Your task to perform on an android device: Search for "The Dispatcher" by John Scalzi on Goodreads Image 0: 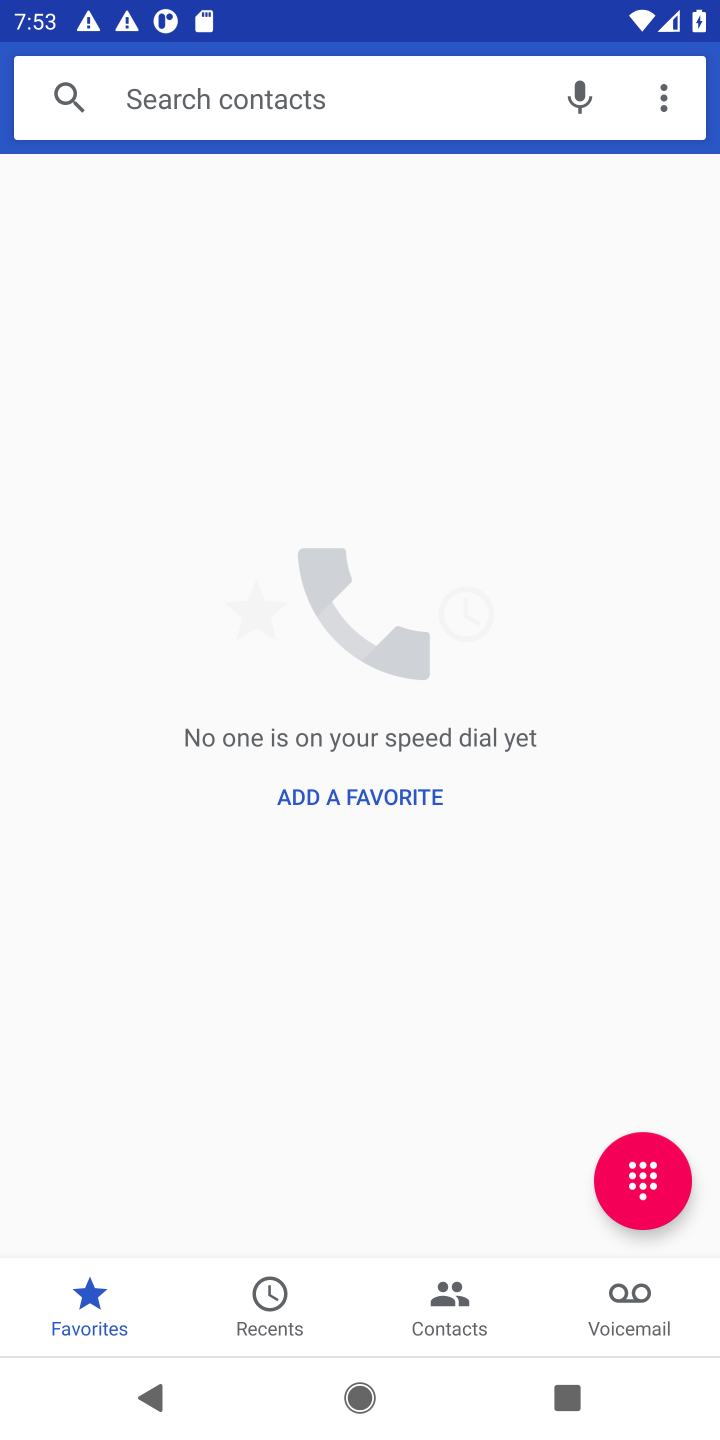
Step 0: press home button
Your task to perform on an android device: Search for "The Dispatcher" by John Scalzi on Goodreads Image 1: 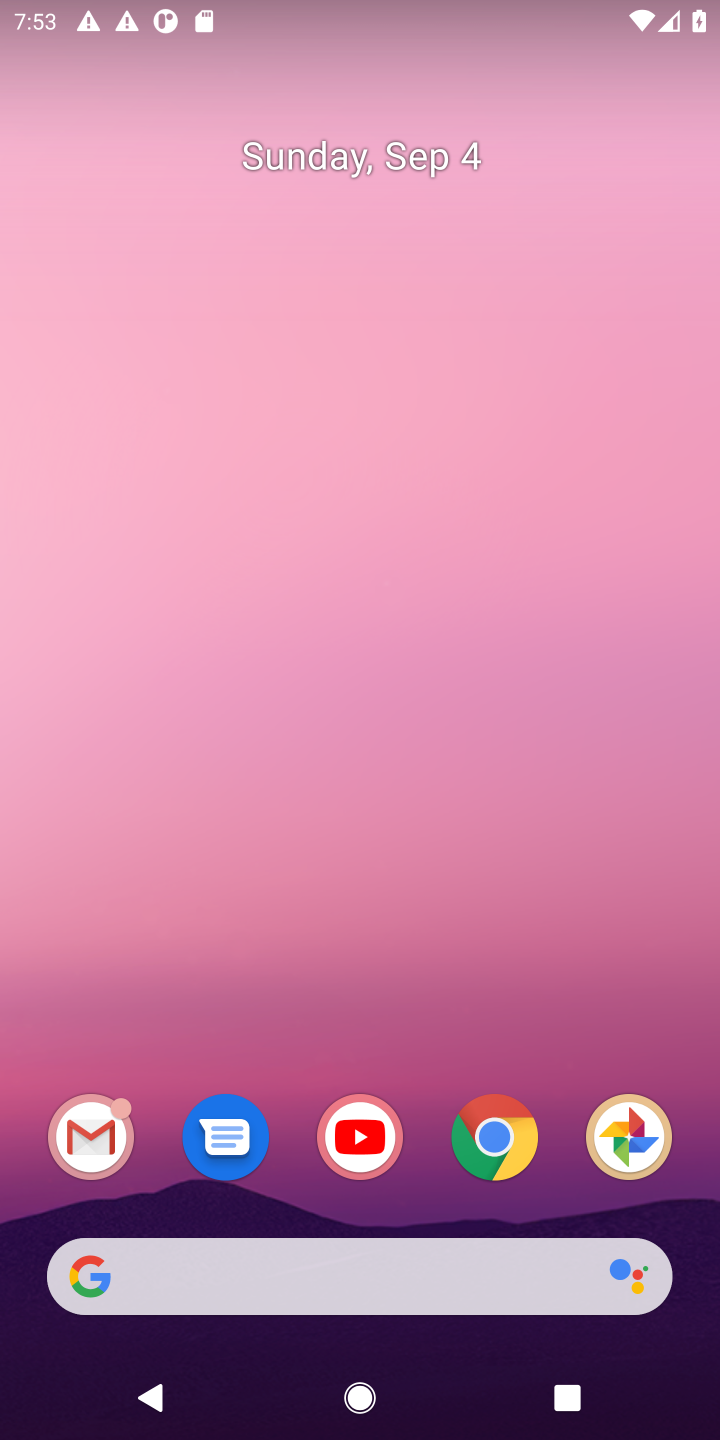
Step 1: click (495, 1142)
Your task to perform on an android device: Search for "The Dispatcher" by John Scalzi on Goodreads Image 2: 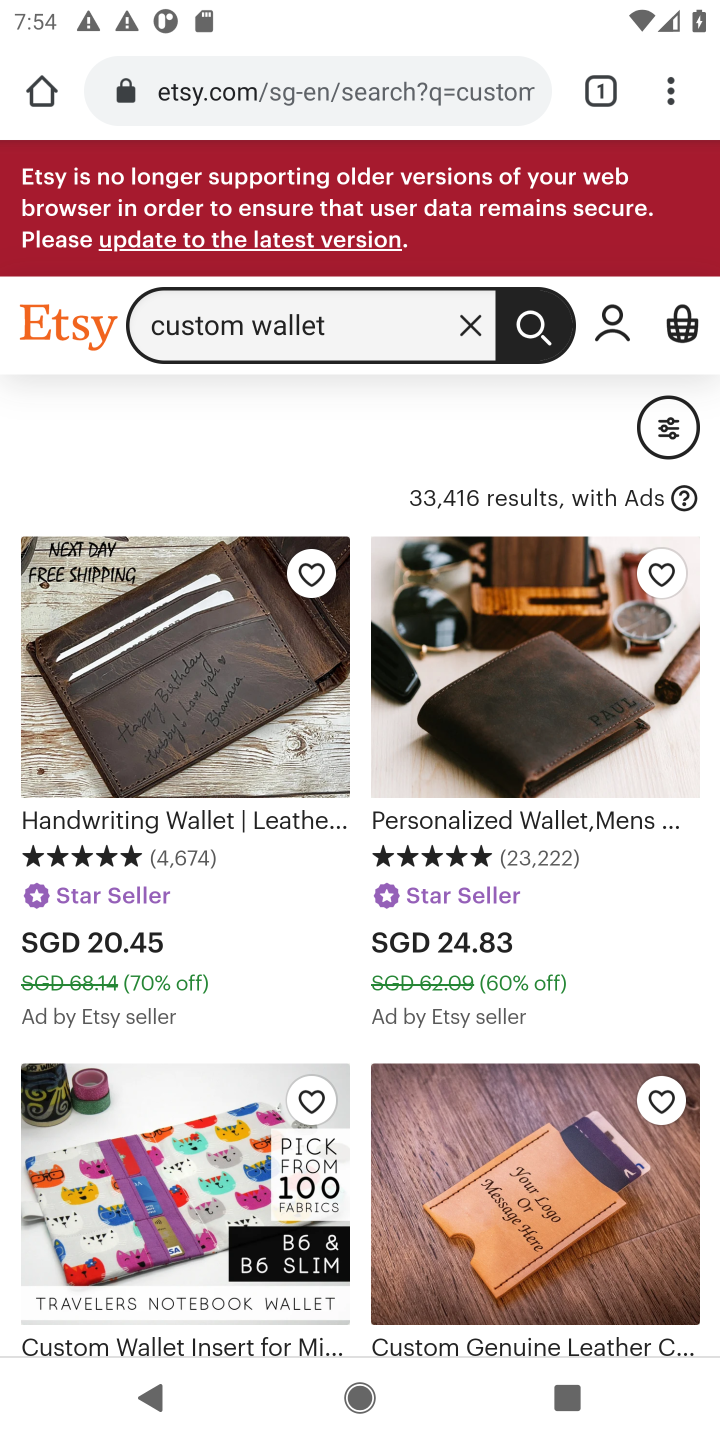
Step 2: click (316, 83)
Your task to perform on an android device: Search for "The Dispatcher" by John Scalzi on Goodreads Image 3: 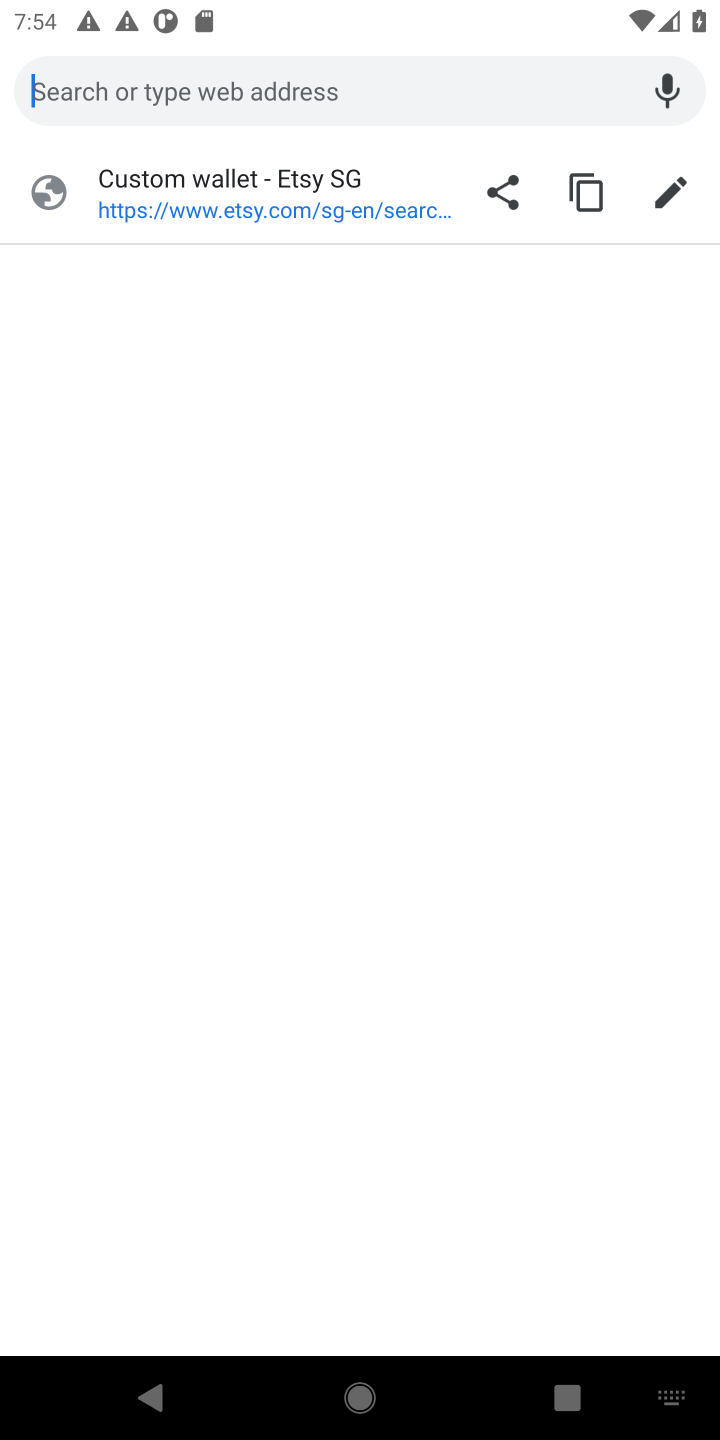
Step 3: type "Goodreads"
Your task to perform on an android device: Search for "The Dispatcher" by John Scalzi on Goodreads Image 4: 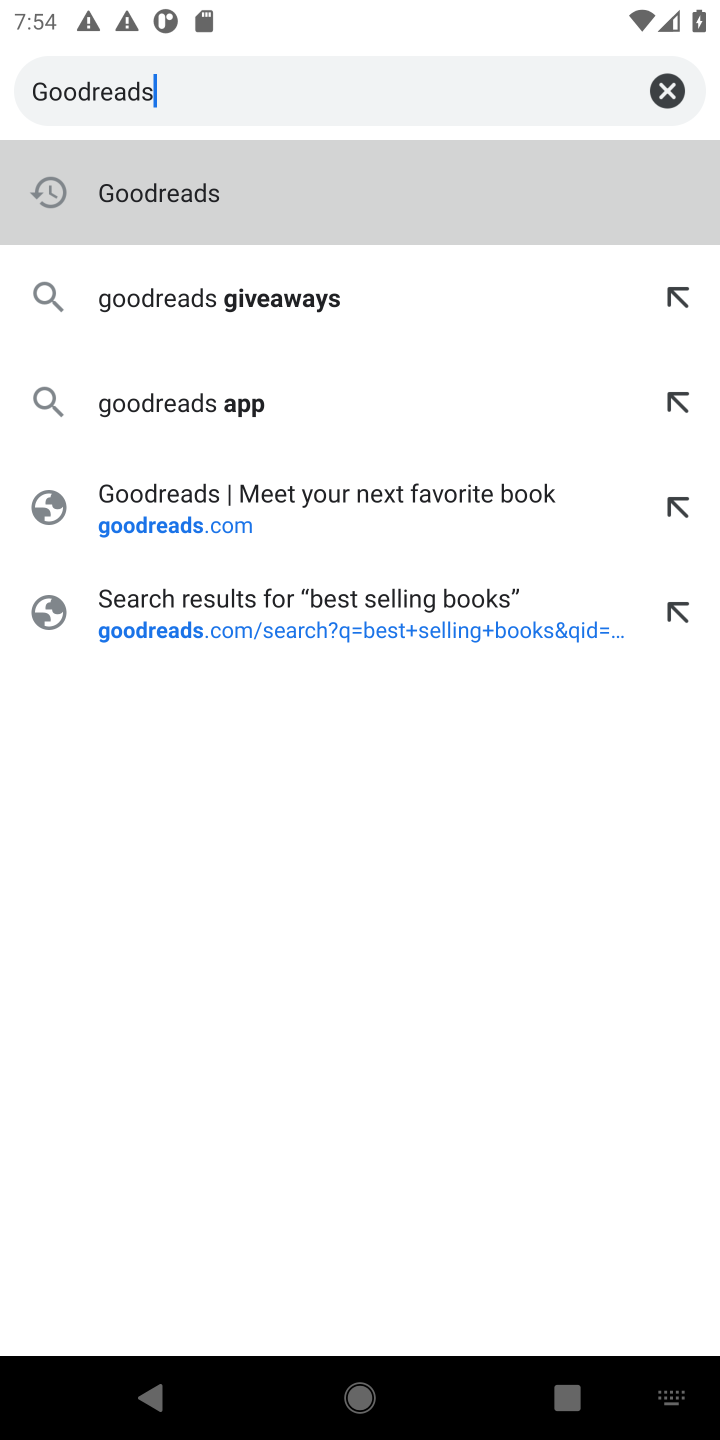
Step 4: click (152, 209)
Your task to perform on an android device: Search for "The Dispatcher" by John Scalzi on Goodreads Image 5: 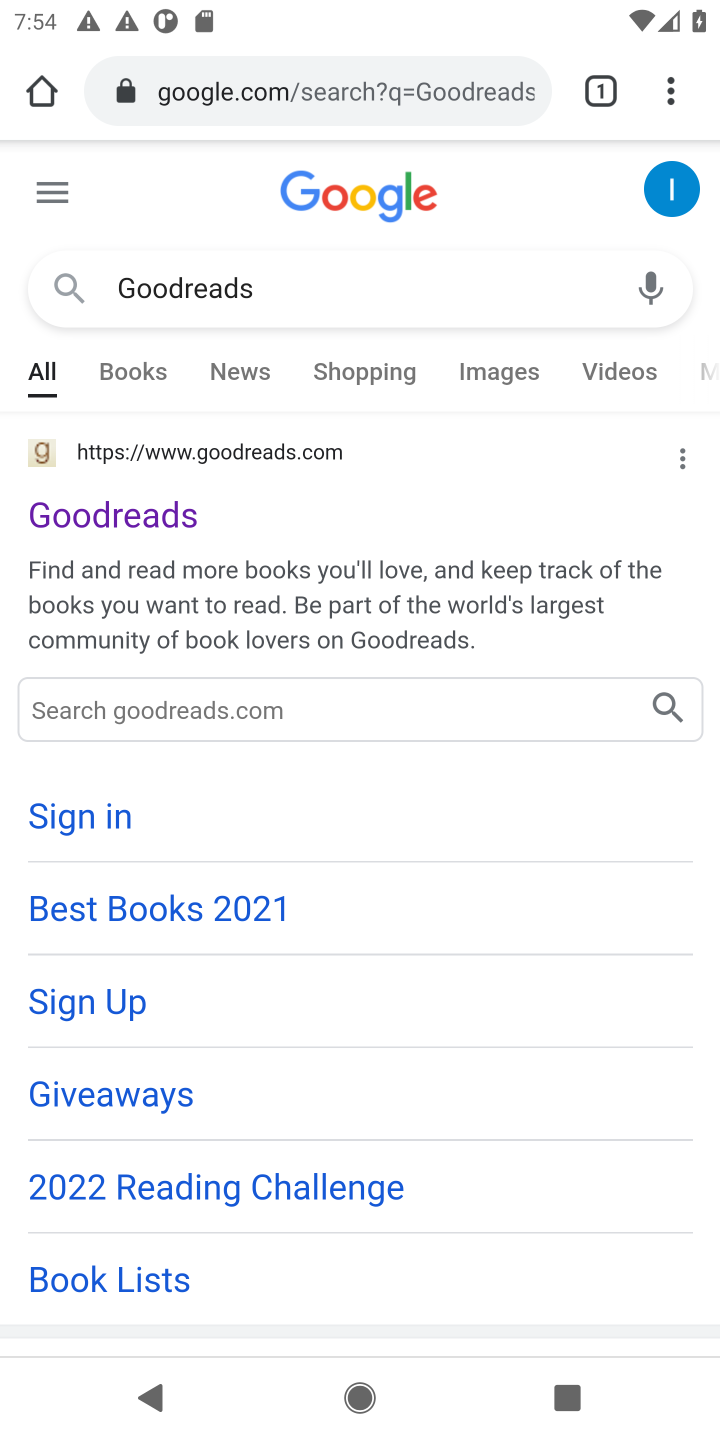
Step 5: click (135, 507)
Your task to perform on an android device: Search for "The Dispatcher" by John Scalzi on Goodreads Image 6: 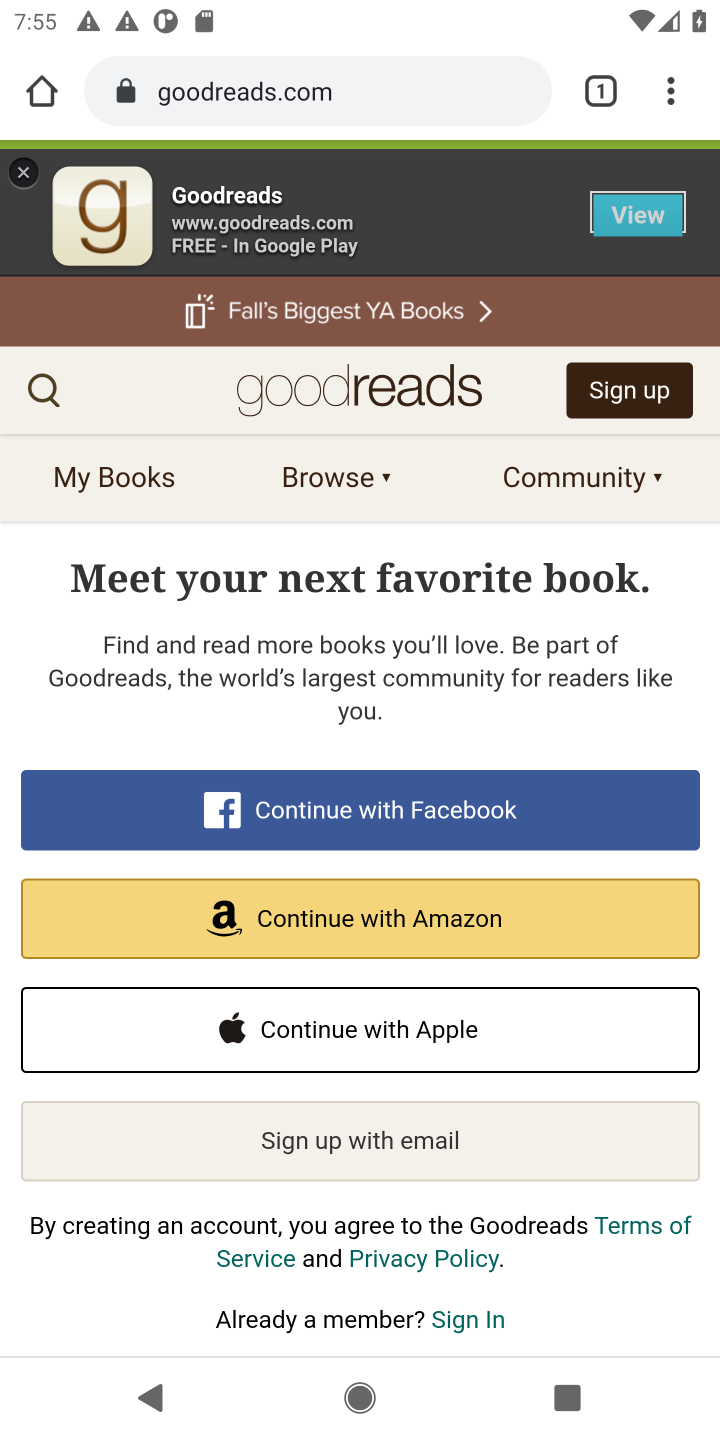
Step 6: click (41, 382)
Your task to perform on an android device: Search for "The Dispatcher" by John Scalzi on Goodreads Image 7: 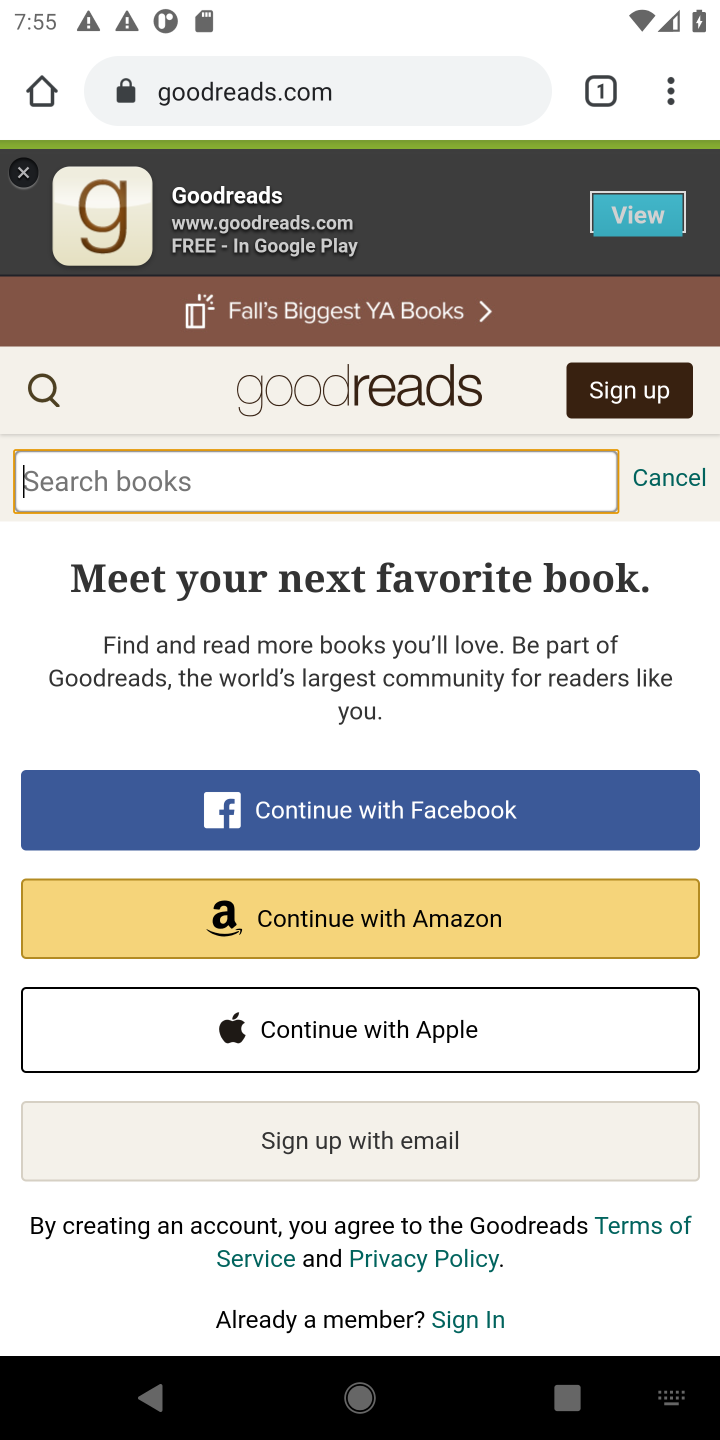
Step 7: click (220, 483)
Your task to perform on an android device: Search for "The Dispatcher" by John Scalzi on Goodreads Image 8: 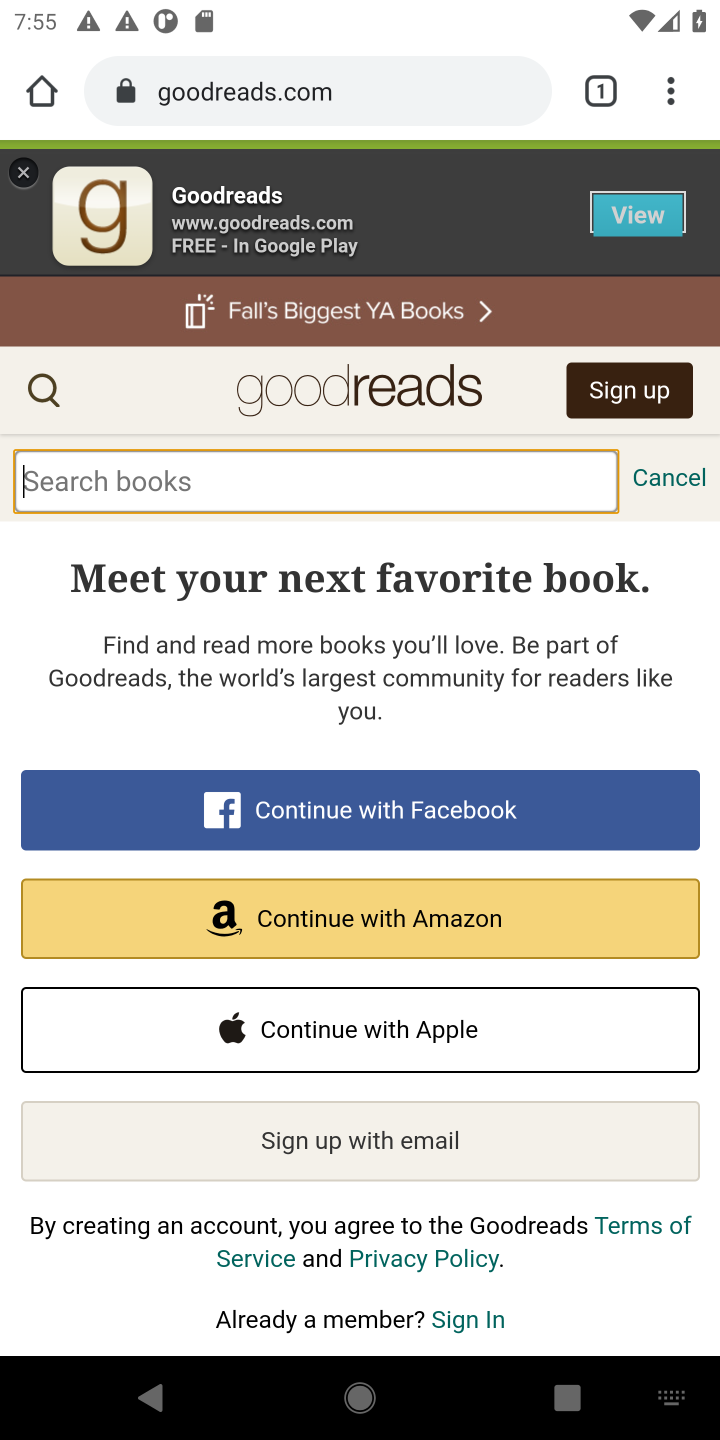
Step 8: type ""The Dispatcher" by John Scalzi "
Your task to perform on an android device: Search for "The Dispatcher" by John Scalzi on Goodreads Image 9: 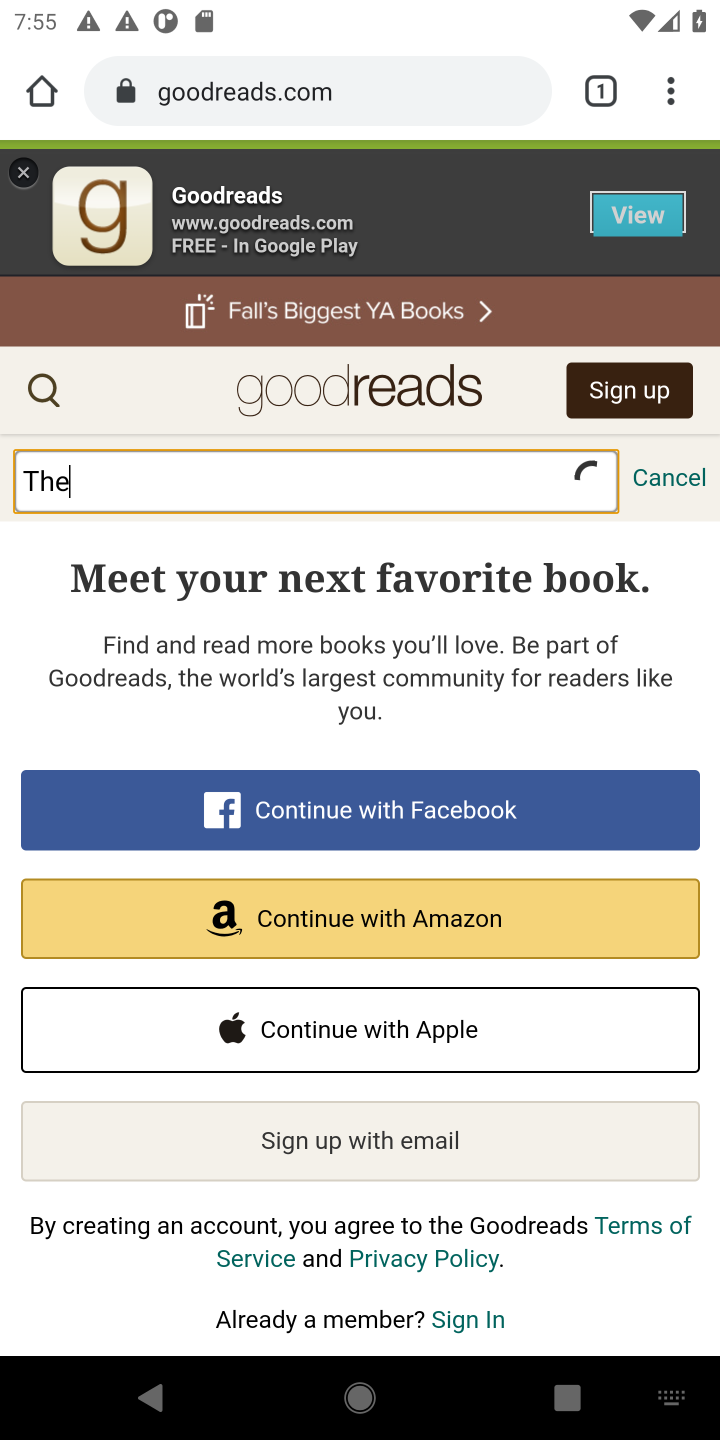
Step 9: type ""
Your task to perform on an android device: Search for "The Dispatcher" by John Scalzi on Goodreads Image 10: 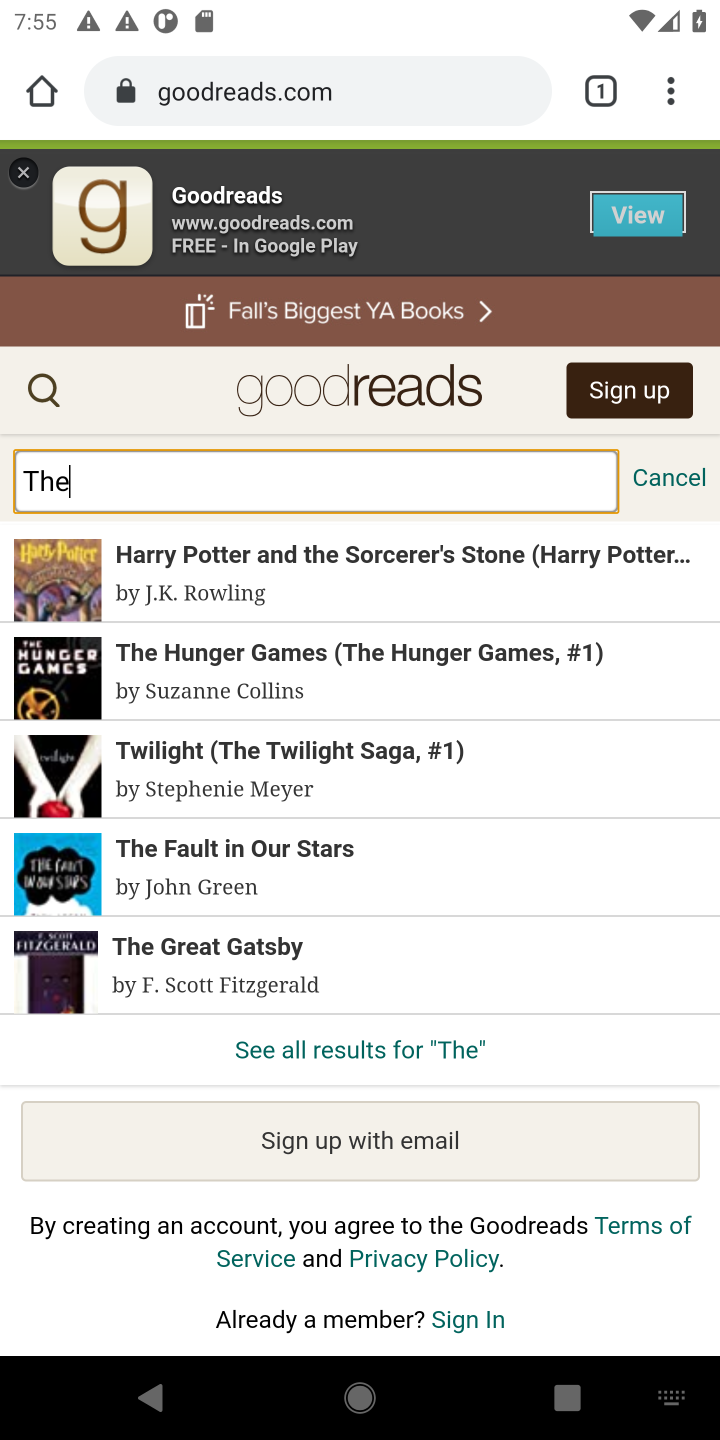
Step 10: click (75, 477)
Your task to perform on an android device: Search for "The Dispatcher" by John Scalzi on Goodreads Image 11: 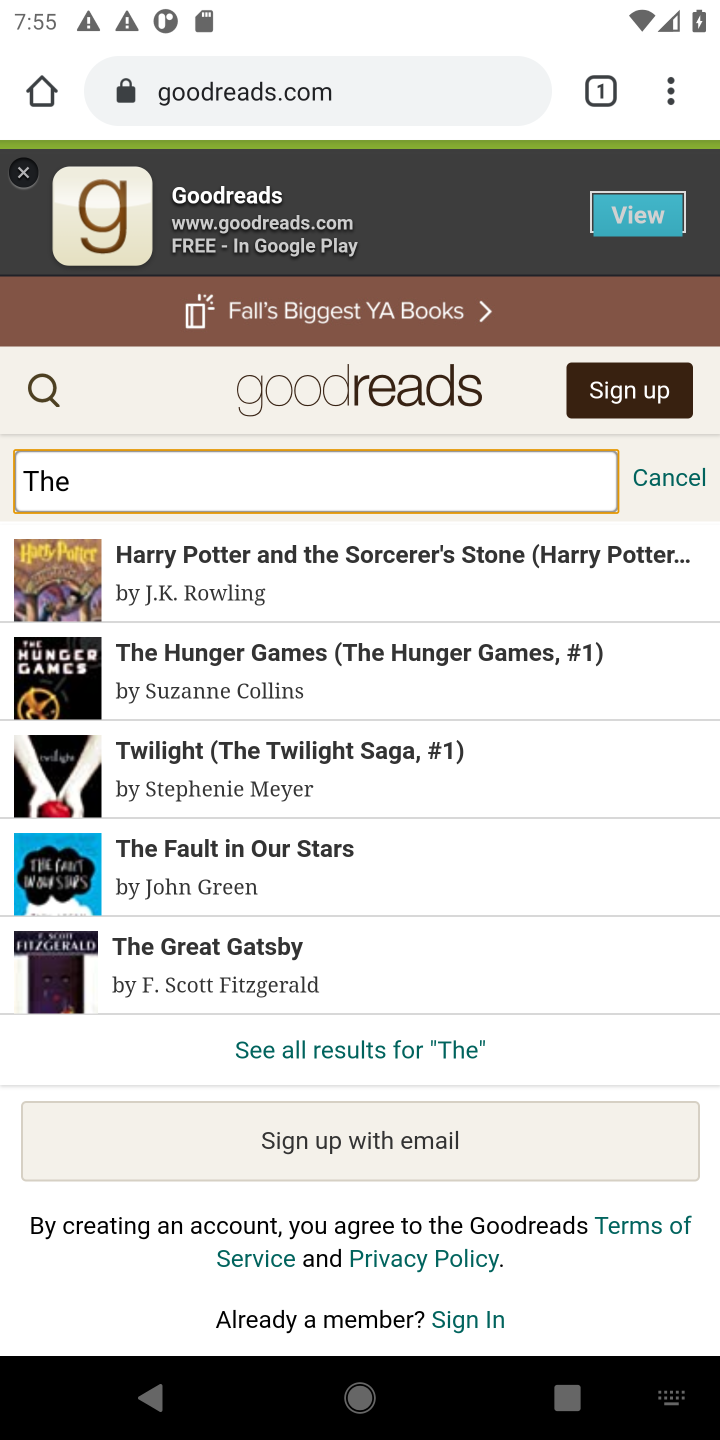
Step 11: drag from (75, 477) to (2, 481)
Your task to perform on an android device: Search for "The Dispatcher" by John Scalzi on Goodreads Image 12: 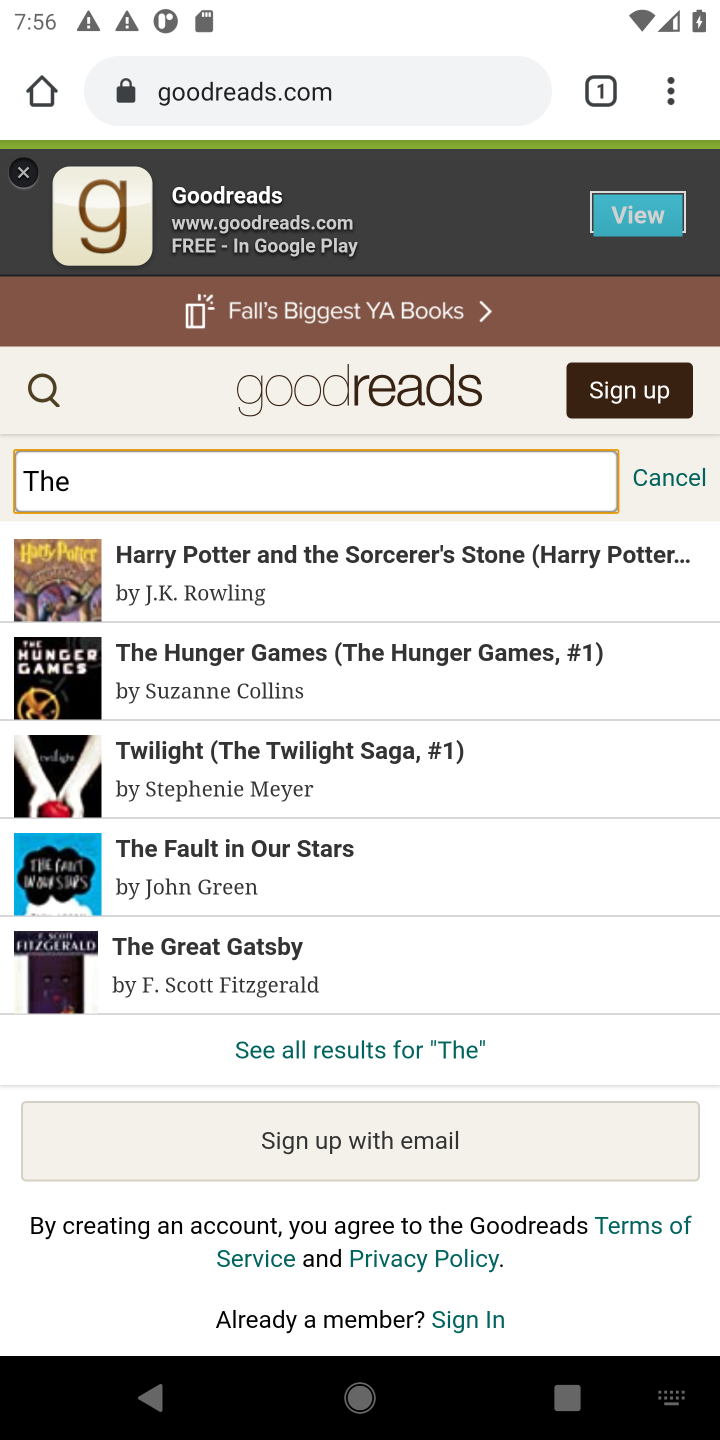
Step 12: type " Dispatcher by John Scalzi"
Your task to perform on an android device: Search for "The Dispatcher" by John Scalzi on Goodreads Image 13: 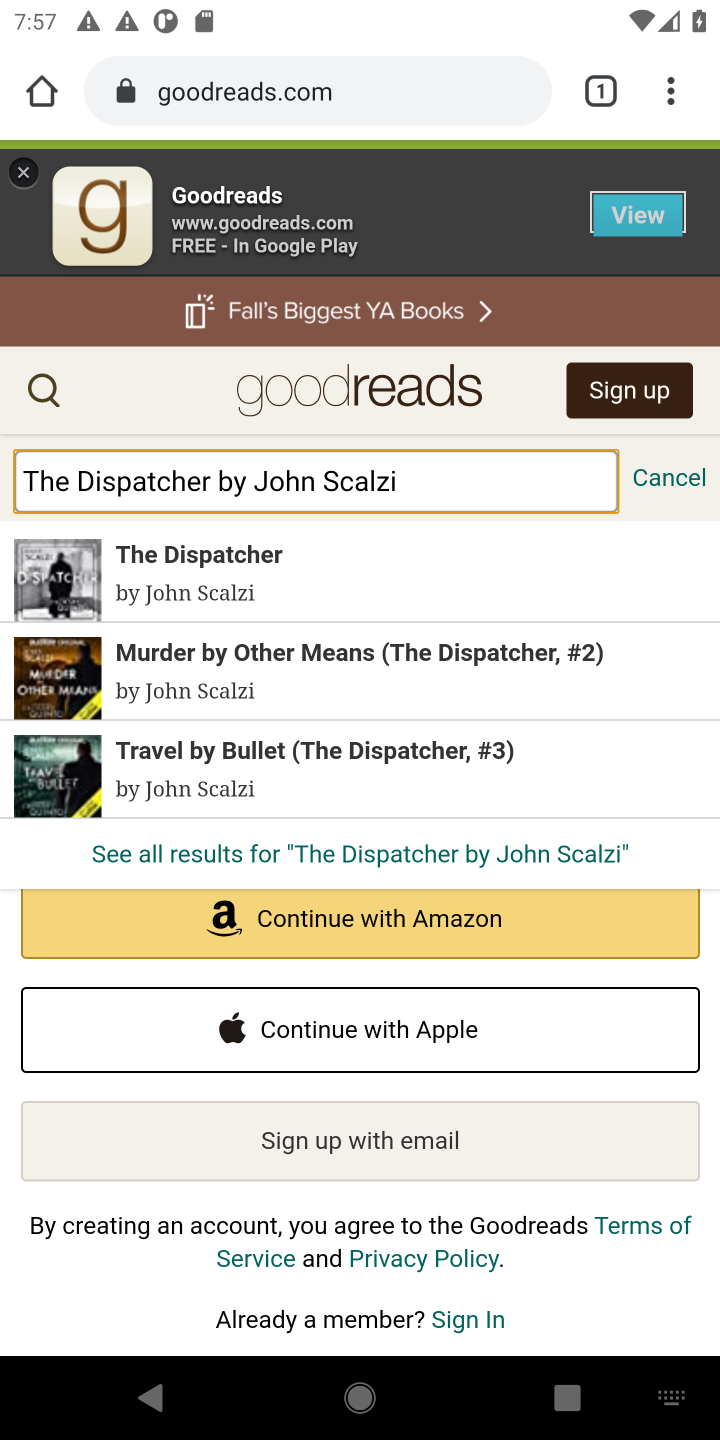
Step 13: click (206, 574)
Your task to perform on an android device: Search for "The Dispatcher" by John Scalzi on Goodreads Image 14: 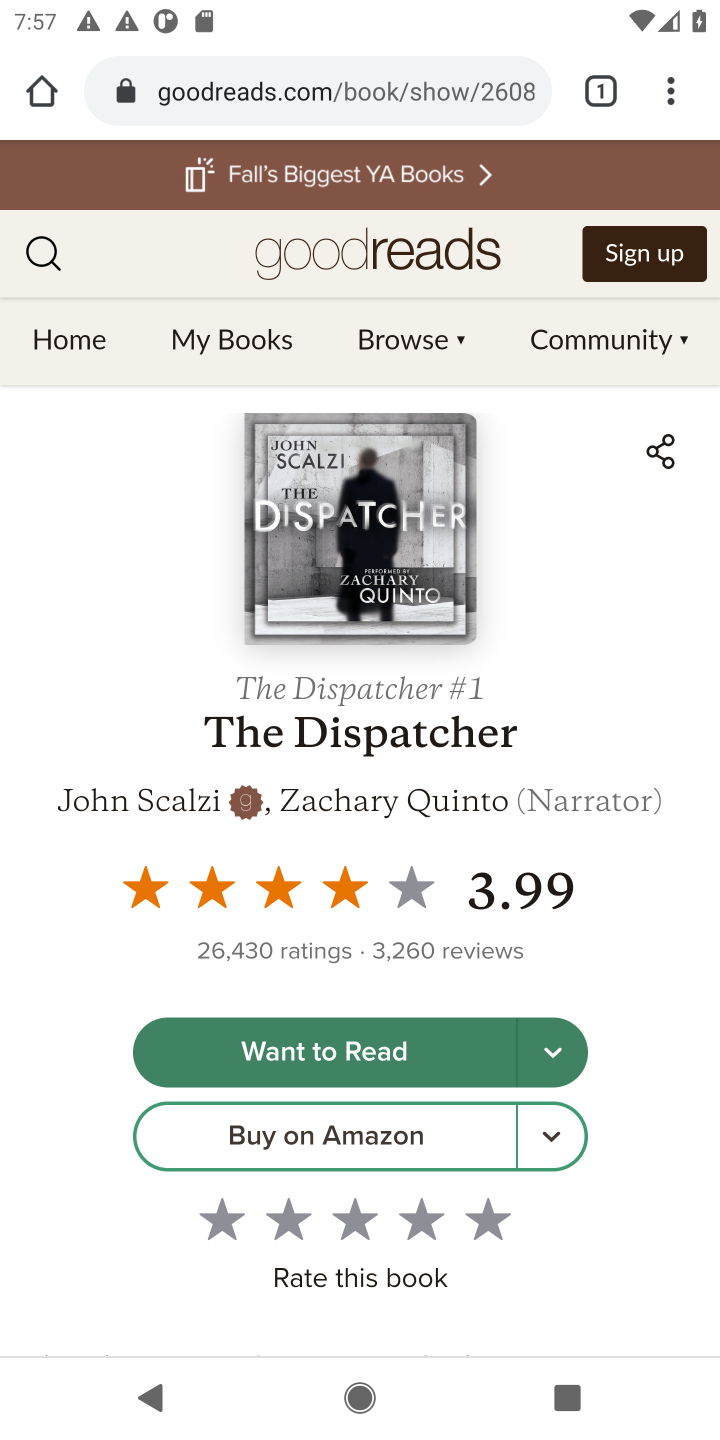
Step 14: task complete